Your task to perform on an android device: Go to accessibility settings Image 0: 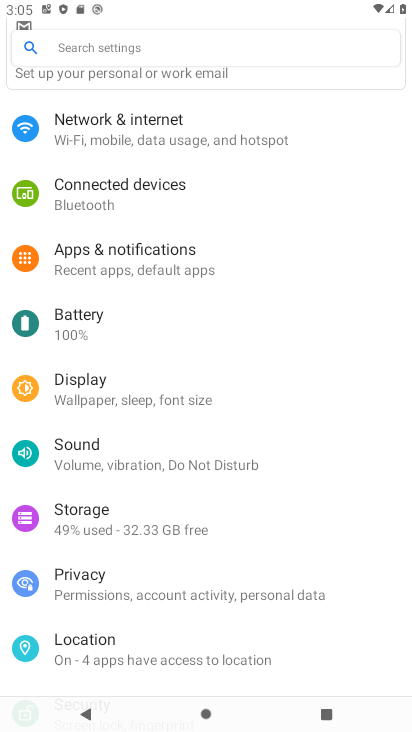
Step 0: drag from (326, 586) to (325, 261)
Your task to perform on an android device: Go to accessibility settings Image 1: 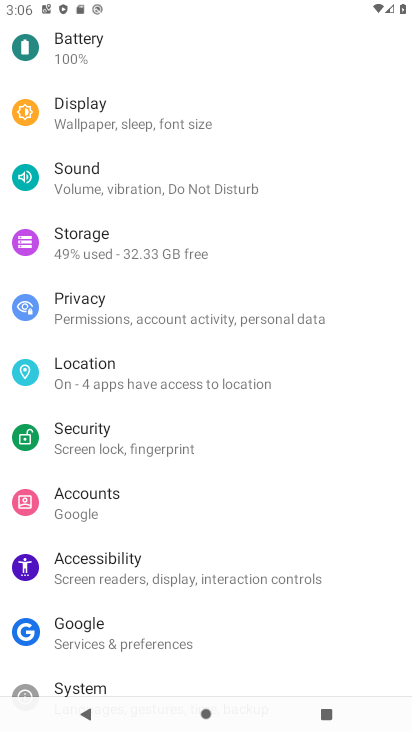
Step 1: click (86, 571)
Your task to perform on an android device: Go to accessibility settings Image 2: 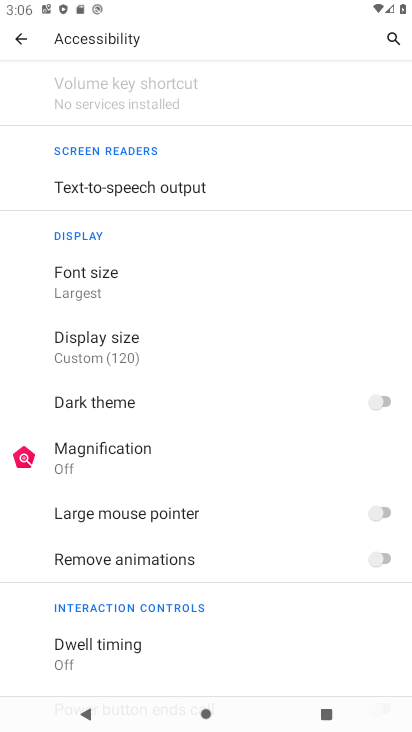
Step 2: task complete